Your task to perform on an android device: change the clock style Image 0: 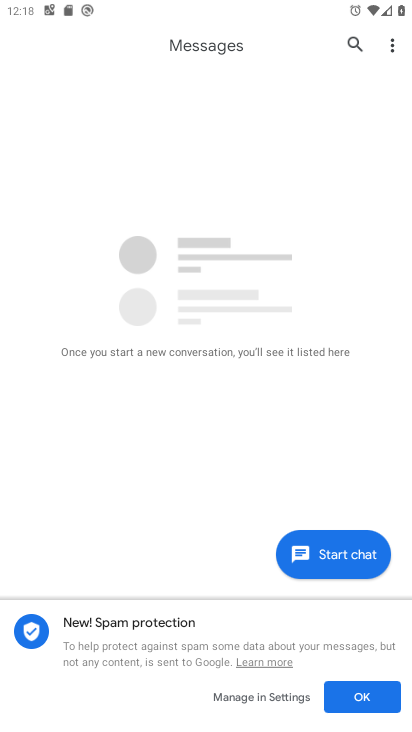
Step 0: drag from (205, 520) to (231, 201)
Your task to perform on an android device: change the clock style Image 1: 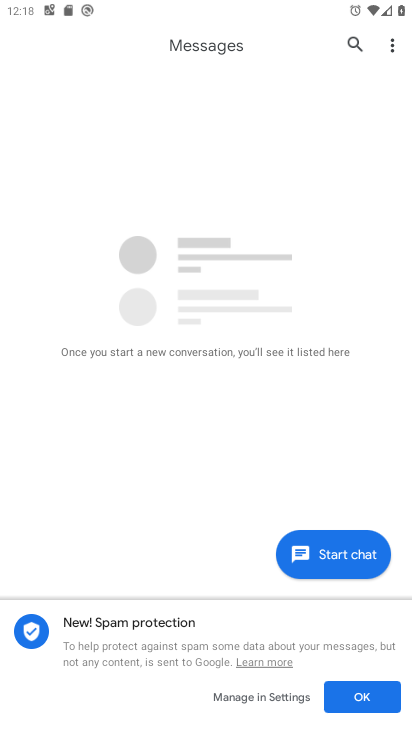
Step 1: click (205, 527)
Your task to perform on an android device: change the clock style Image 2: 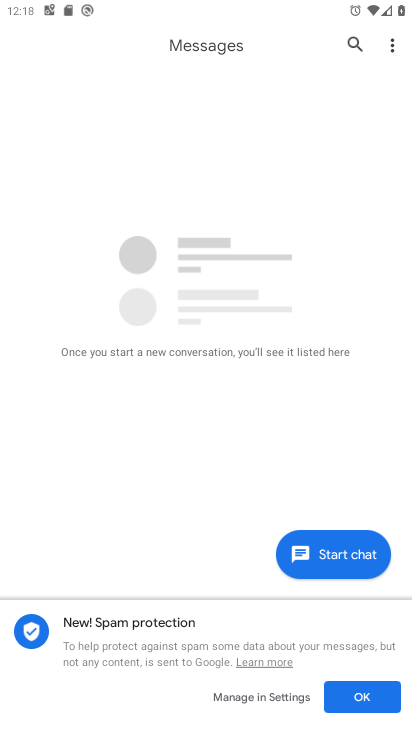
Step 2: press home button
Your task to perform on an android device: change the clock style Image 3: 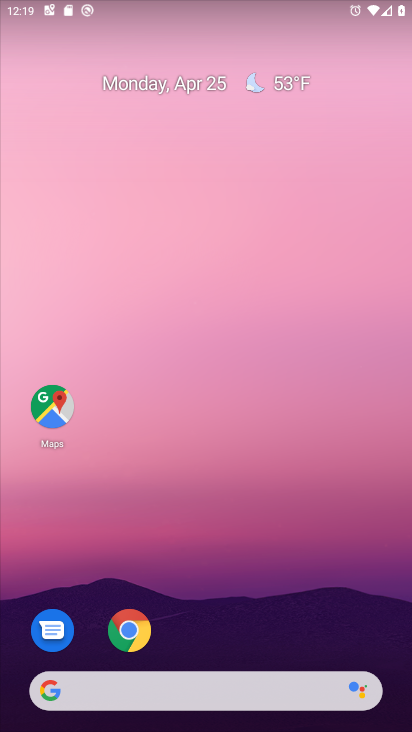
Step 3: click (219, 310)
Your task to perform on an android device: change the clock style Image 4: 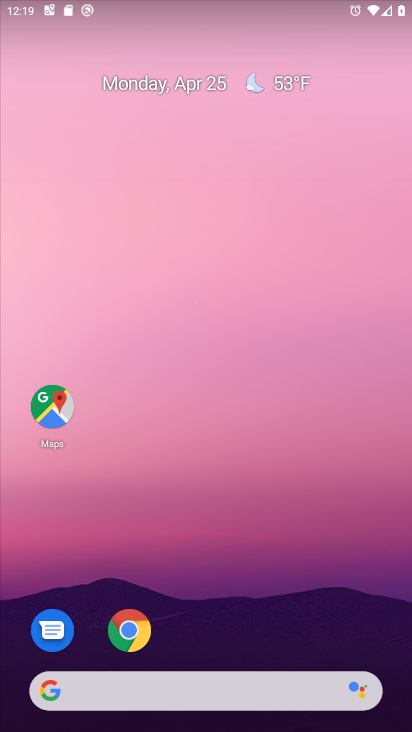
Step 4: drag from (207, 596) to (266, 122)
Your task to perform on an android device: change the clock style Image 5: 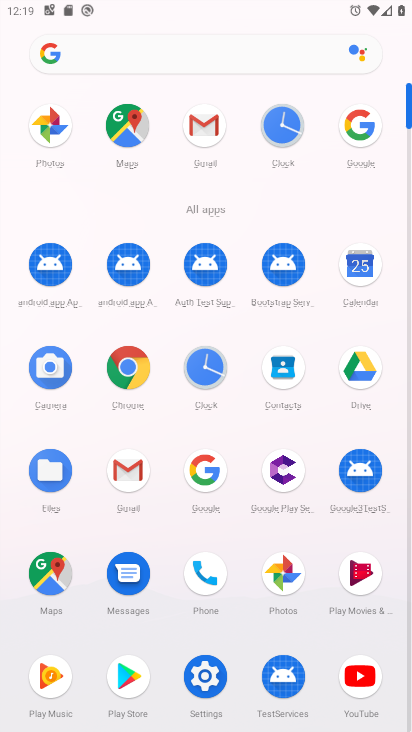
Step 5: click (208, 363)
Your task to perform on an android device: change the clock style Image 6: 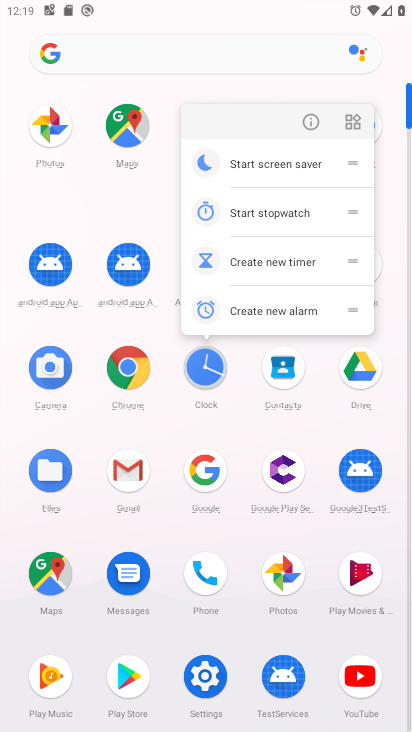
Step 6: click (312, 119)
Your task to perform on an android device: change the clock style Image 7: 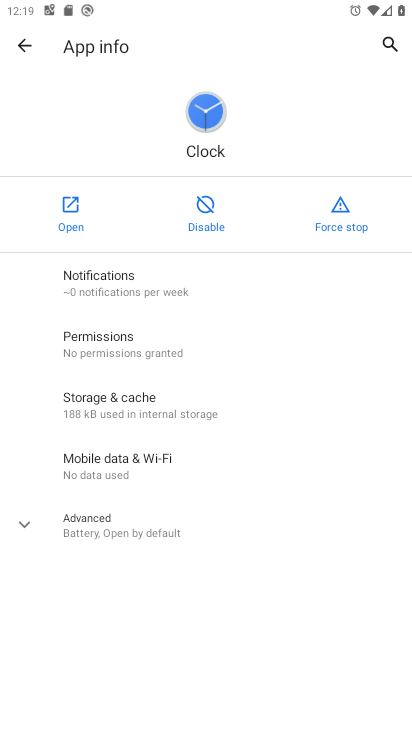
Step 7: click (83, 198)
Your task to perform on an android device: change the clock style Image 8: 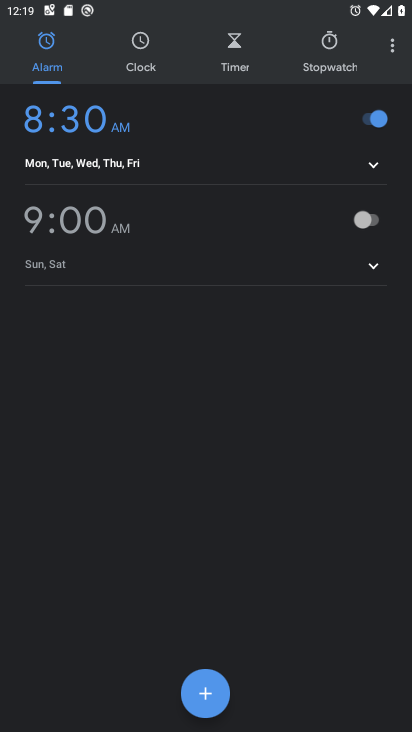
Step 8: click (382, 49)
Your task to perform on an android device: change the clock style Image 9: 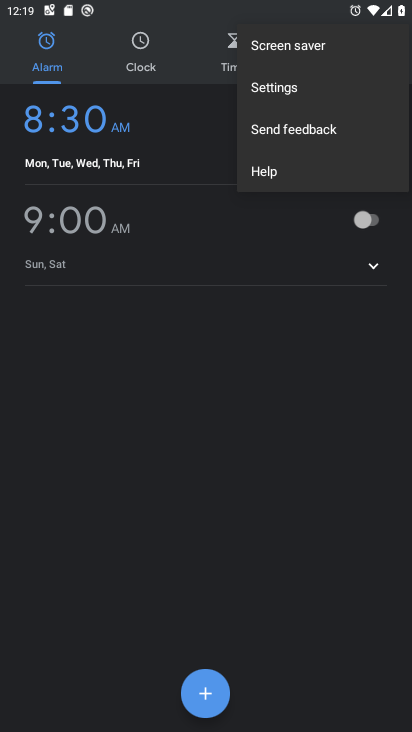
Step 9: click (288, 82)
Your task to perform on an android device: change the clock style Image 10: 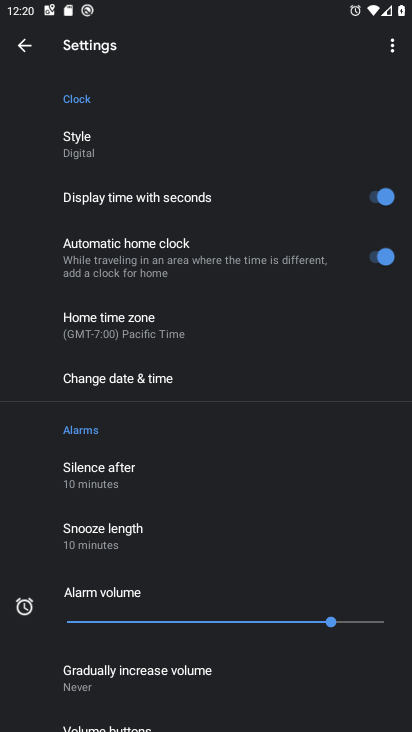
Step 10: click (105, 142)
Your task to perform on an android device: change the clock style Image 11: 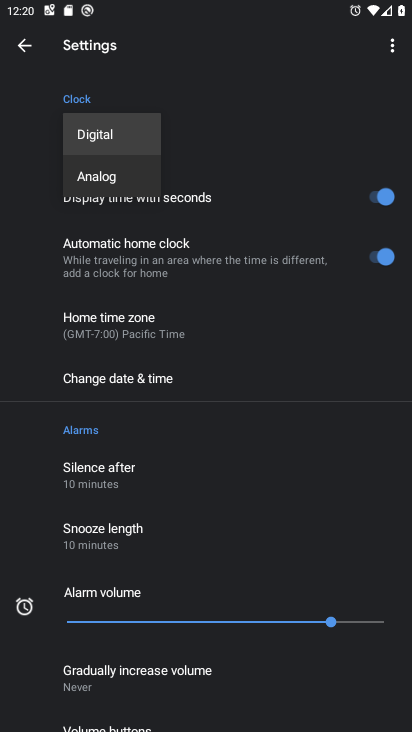
Step 11: click (125, 174)
Your task to perform on an android device: change the clock style Image 12: 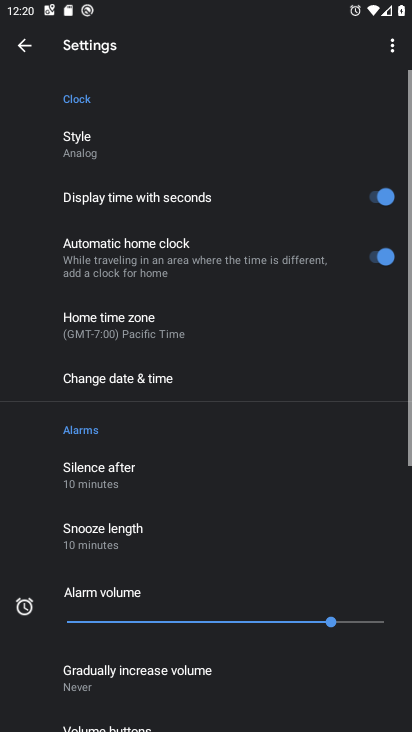
Step 12: task complete